Your task to perform on an android device: create a new album in the google photos Image 0: 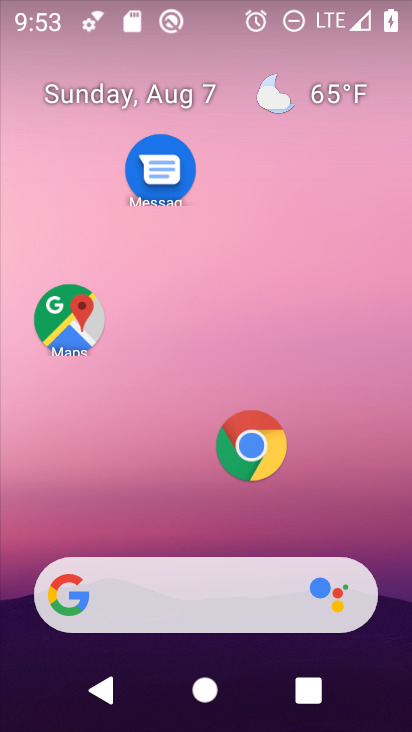
Step 0: press home button
Your task to perform on an android device: create a new album in the google photos Image 1: 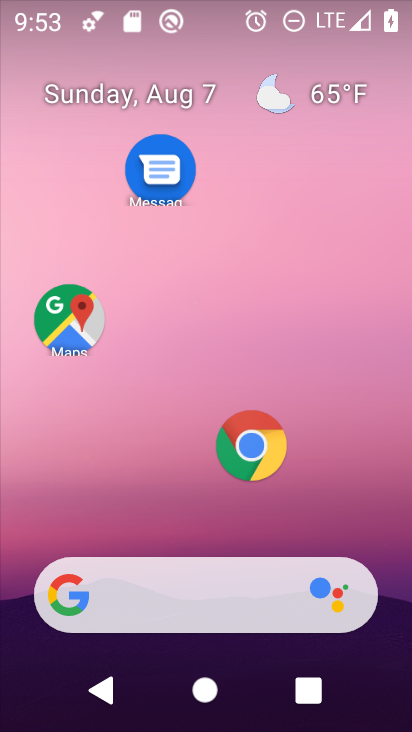
Step 1: drag from (190, 526) to (251, 51)
Your task to perform on an android device: create a new album in the google photos Image 2: 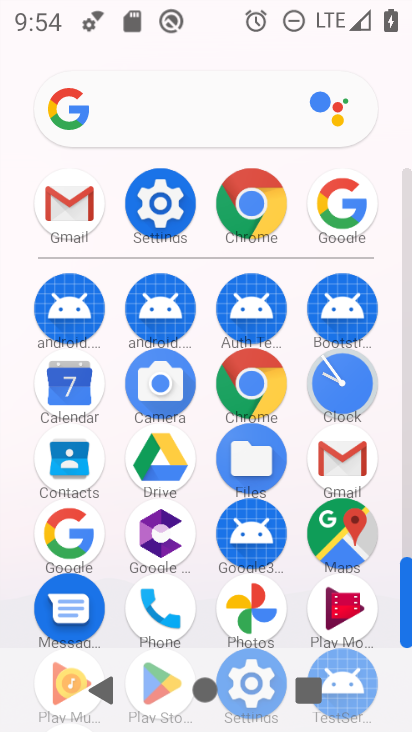
Step 2: click (250, 602)
Your task to perform on an android device: create a new album in the google photos Image 3: 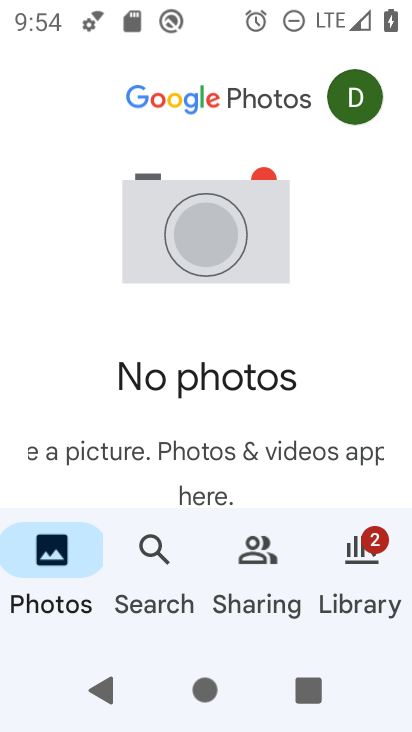
Step 3: click (247, 566)
Your task to perform on an android device: create a new album in the google photos Image 4: 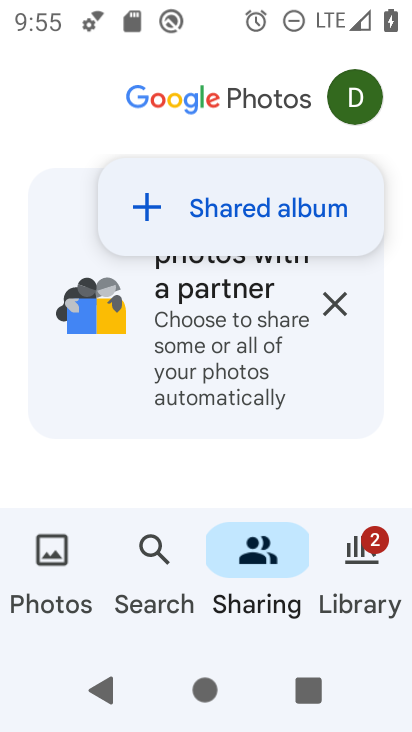
Step 4: click (252, 197)
Your task to perform on an android device: create a new album in the google photos Image 5: 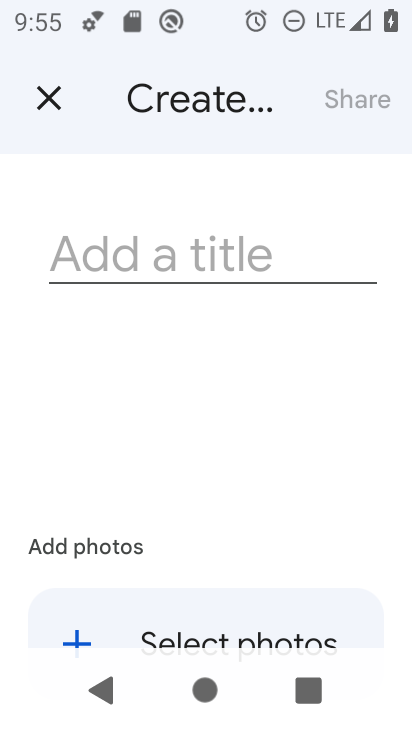
Step 5: click (133, 624)
Your task to perform on an android device: create a new album in the google photos Image 6: 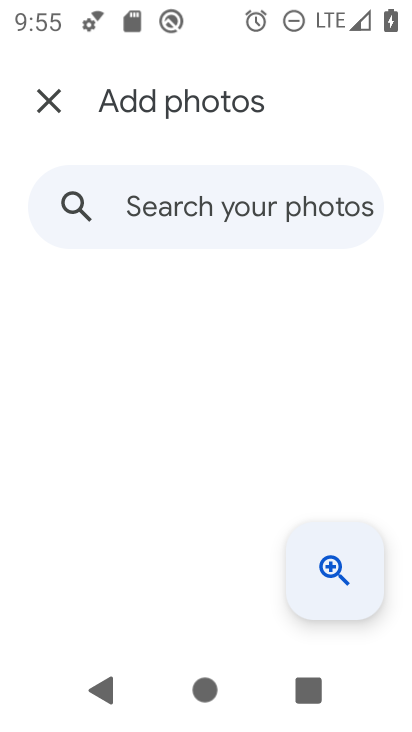
Step 6: task complete